Your task to perform on an android device: turn off priority inbox in the gmail app Image 0: 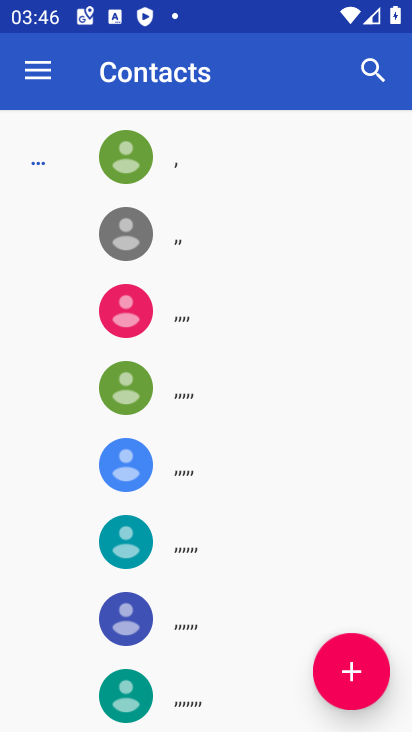
Step 0: press home button
Your task to perform on an android device: turn off priority inbox in the gmail app Image 1: 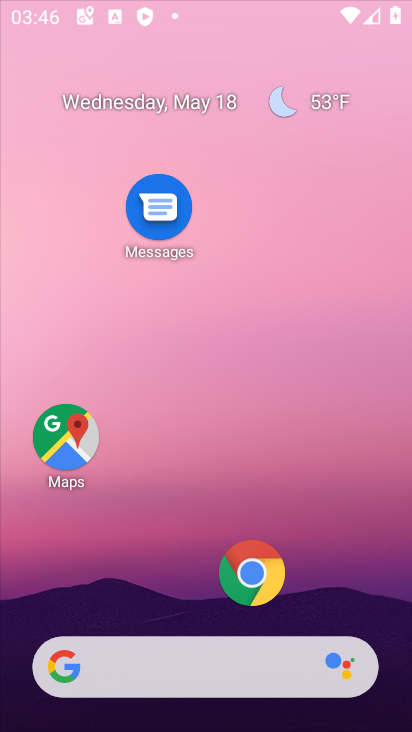
Step 1: press home button
Your task to perform on an android device: turn off priority inbox in the gmail app Image 2: 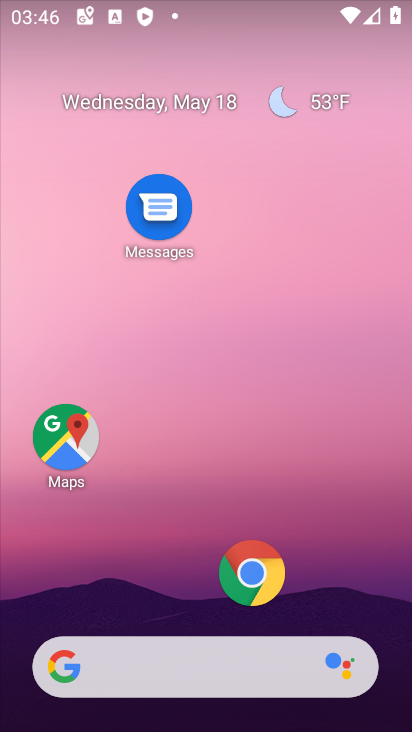
Step 2: drag from (196, 589) to (246, 210)
Your task to perform on an android device: turn off priority inbox in the gmail app Image 3: 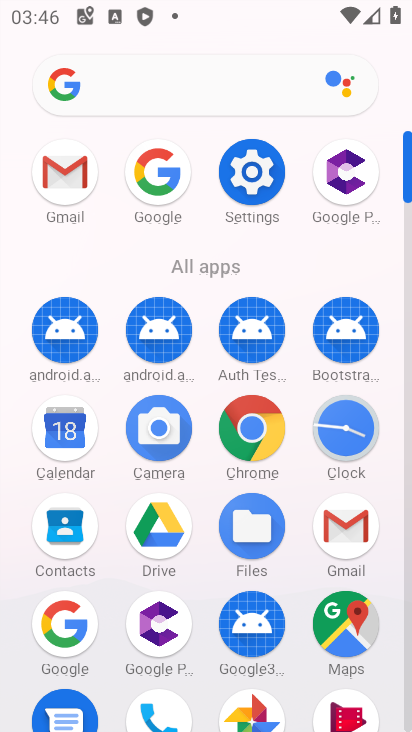
Step 3: click (70, 188)
Your task to perform on an android device: turn off priority inbox in the gmail app Image 4: 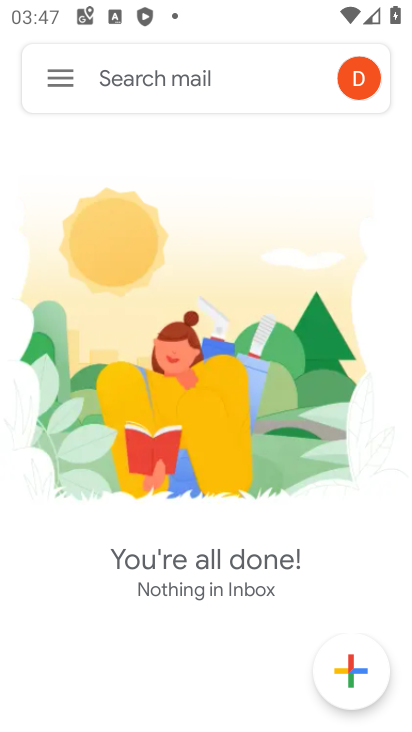
Step 4: click (56, 74)
Your task to perform on an android device: turn off priority inbox in the gmail app Image 5: 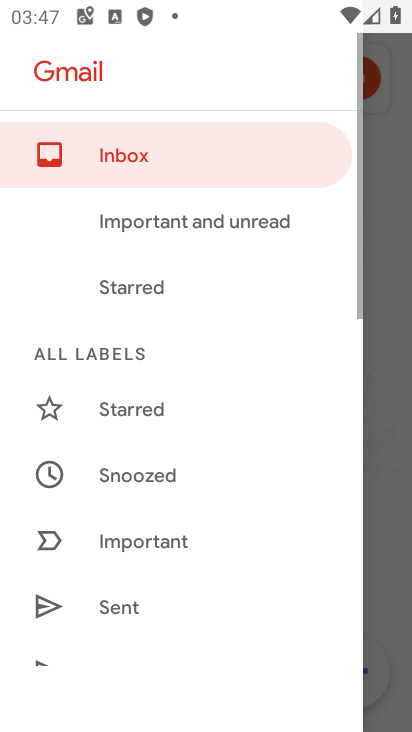
Step 5: drag from (151, 603) to (156, 304)
Your task to perform on an android device: turn off priority inbox in the gmail app Image 6: 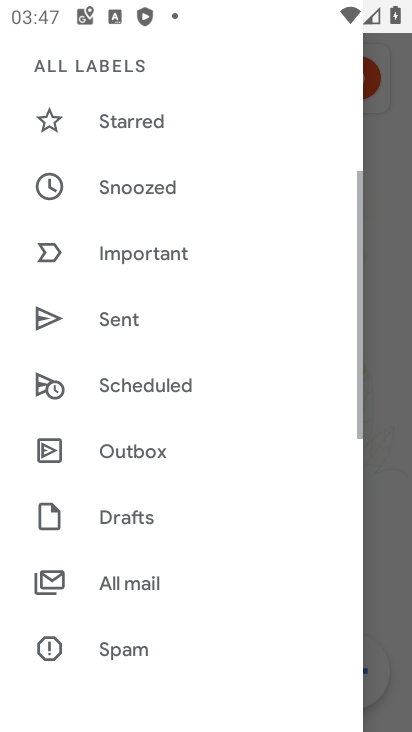
Step 6: drag from (162, 577) to (168, 268)
Your task to perform on an android device: turn off priority inbox in the gmail app Image 7: 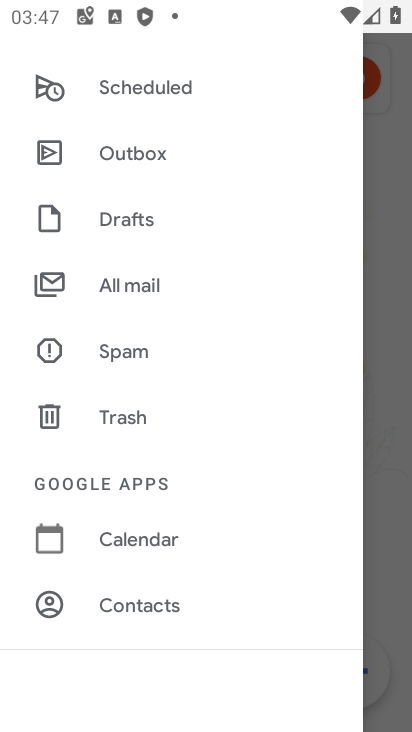
Step 7: drag from (154, 602) to (157, 320)
Your task to perform on an android device: turn off priority inbox in the gmail app Image 8: 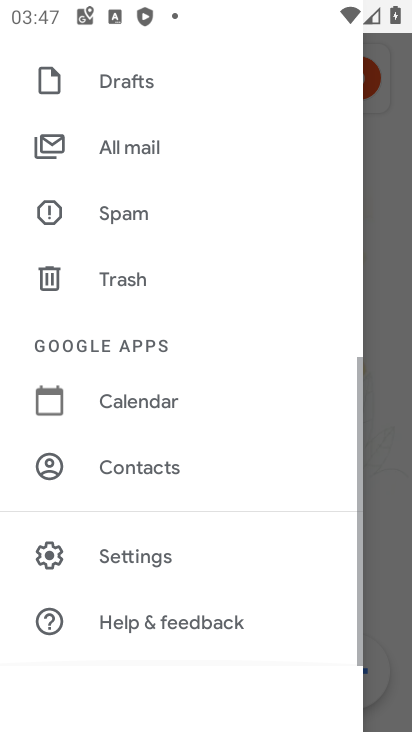
Step 8: click (134, 540)
Your task to perform on an android device: turn off priority inbox in the gmail app Image 9: 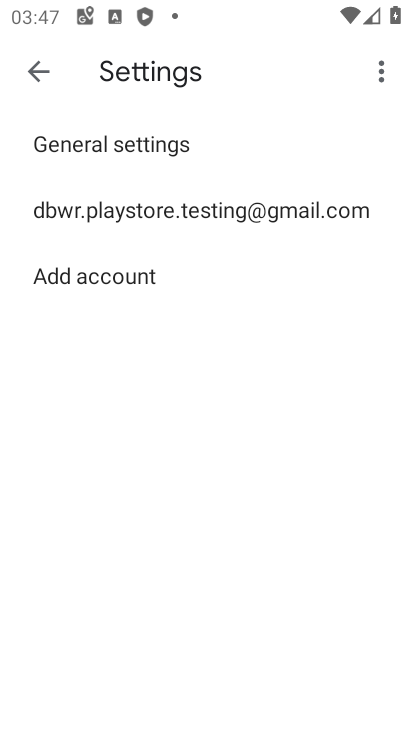
Step 9: click (152, 212)
Your task to perform on an android device: turn off priority inbox in the gmail app Image 10: 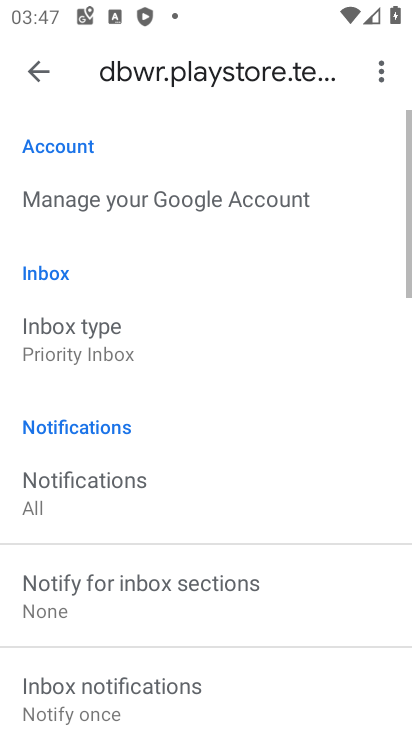
Step 10: drag from (212, 596) to (201, 273)
Your task to perform on an android device: turn off priority inbox in the gmail app Image 11: 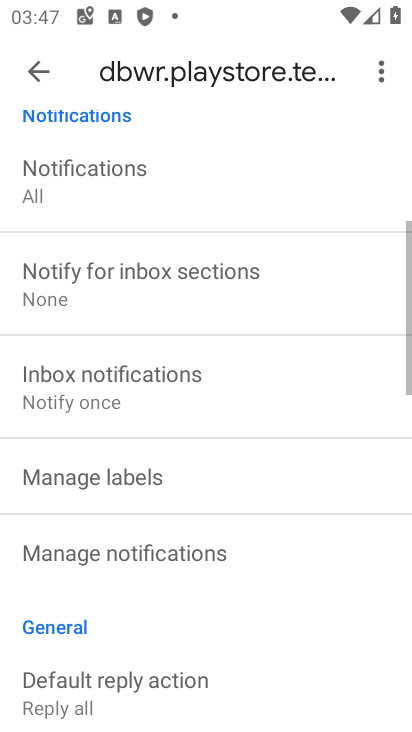
Step 11: drag from (195, 261) to (207, 392)
Your task to perform on an android device: turn off priority inbox in the gmail app Image 12: 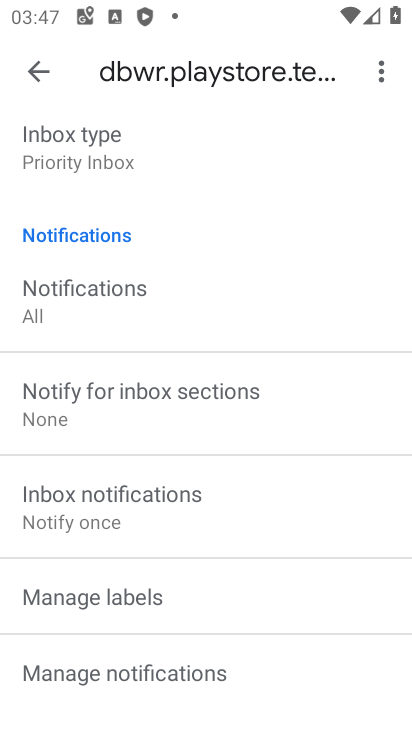
Step 12: click (136, 167)
Your task to perform on an android device: turn off priority inbox in the gmail app Image 13: 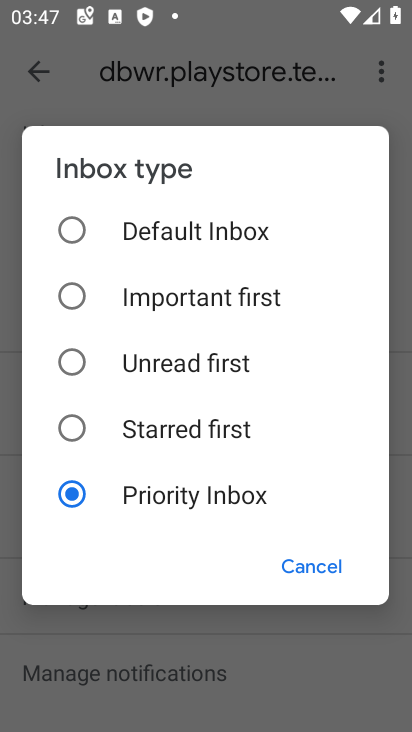
Step 13: click (171, 222)
Your task to perform on an android device: turn off priority inbox in the gmail app Image 14: 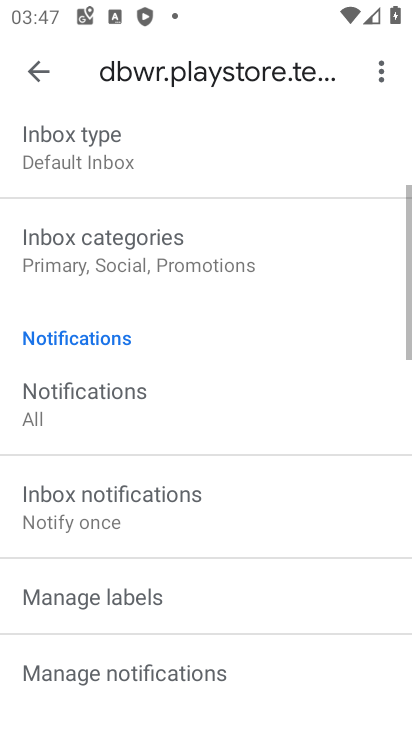
Step 14: task complete